Your task to perform on an android device: check the backup settings in the google photos Image 0: 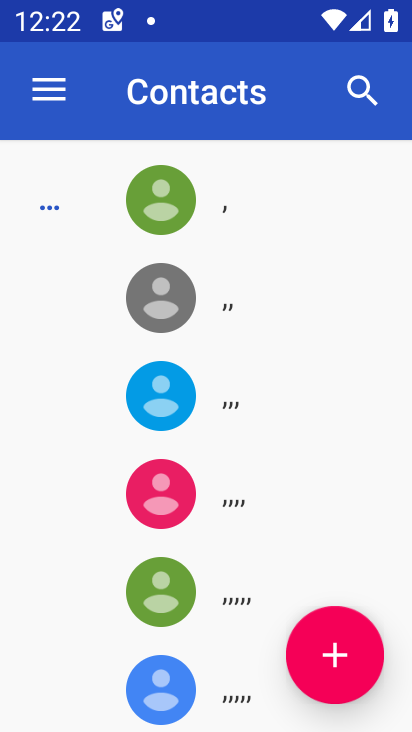
Step 0: press home button
Your task to perform on an android device: check the backup settings in the google photos Image 1: 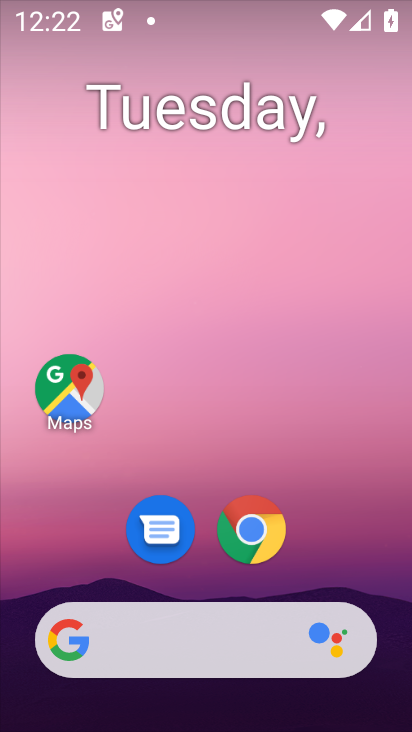
Step 1: drag from (220, 547) to (263, 197)
Your task to perform on an android device: check the backup settings in the google photos Image 2: 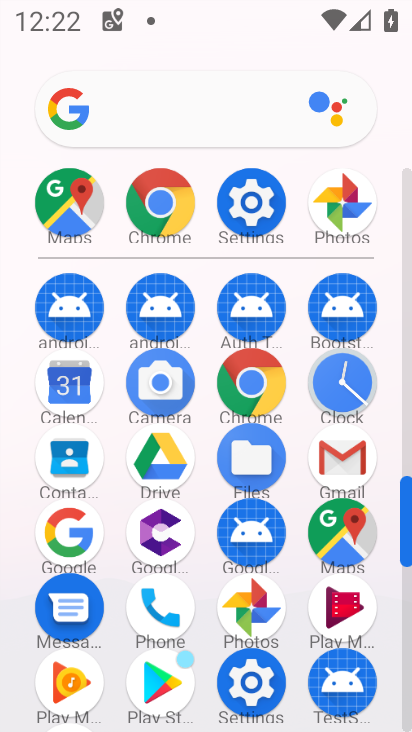
Step 2: click (256, 586)
Your task to perform on an android device: check the backup settings in the google photos Image 3: 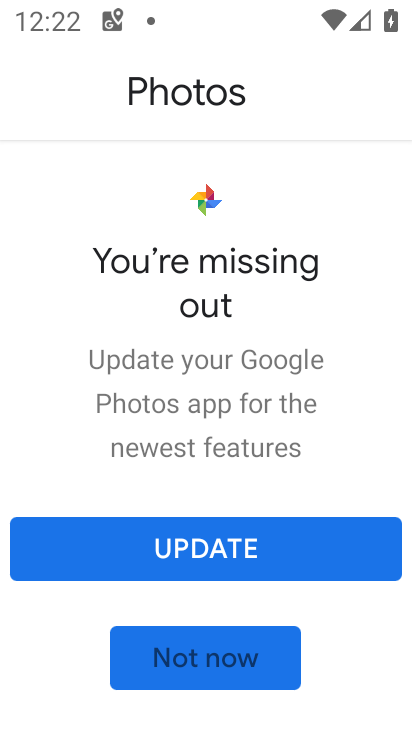
Step 3: click (216, 552)
Your task to perform on an android device: check the backup settings in the google photos Image 4: 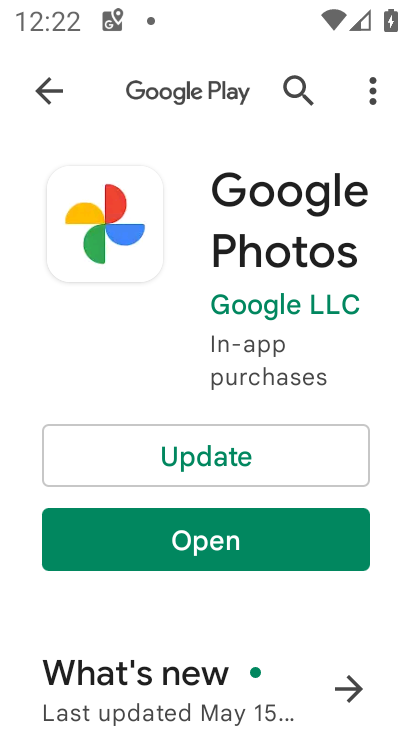
Step 4: click (192, 446)
Your task to perform on an android device: check the backup settings in the google photos Image 5: 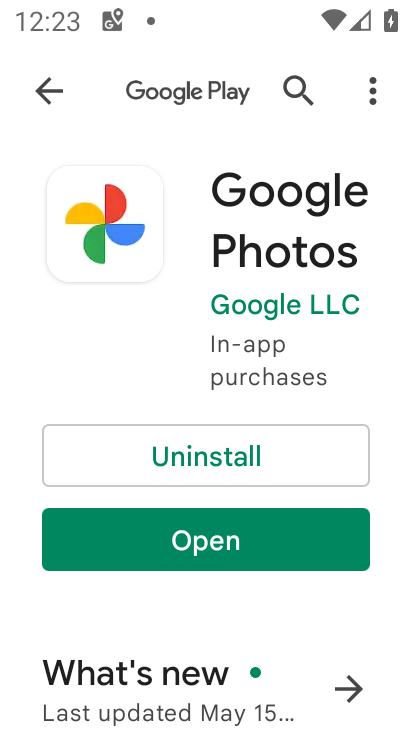
Step 5: click (196, 549)
Your task to perform on an android device: check the backup settings in the google photos Image 6: 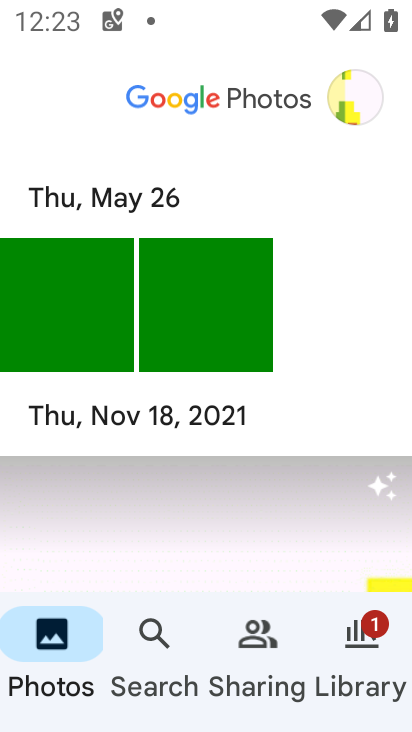
Step 6: click (349, 83)
Your task to perform on an android device: check the backup settings in the google photos Image 7: 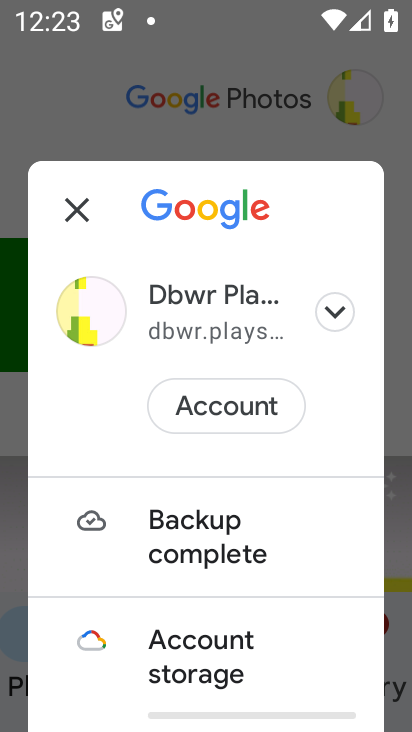
Step 7: drag from (210, 642) to (279, 366)
Your task to perform on an android device: check the backup settings in the google photos Image 8: 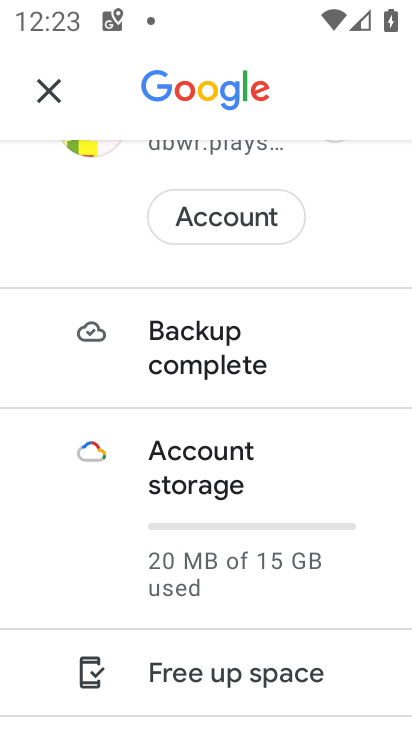
Step 8: drag from (240, 483) to (321, 251)
Your task to perform on an android device: check the backup settings in the google photos Image 9: 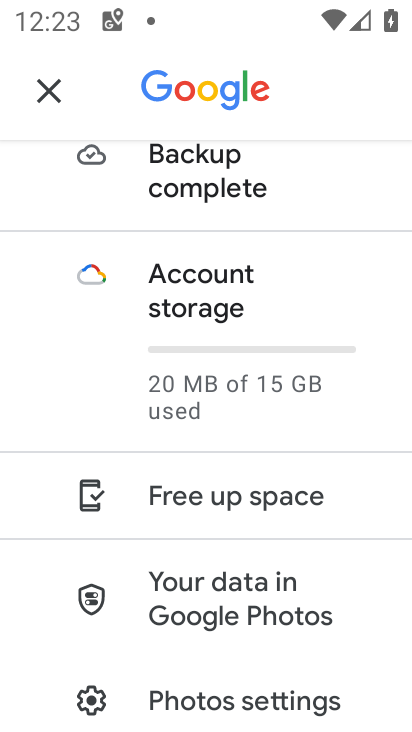
Step 9: click (182, 690)
Your task to perform on an android device: check the backup settings in the google photos Image 10: 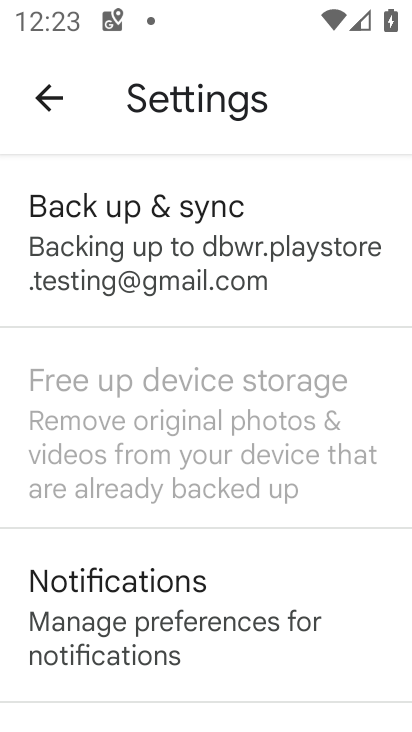
Step 10: click (225, 259)
Your task to perform on an android device: check the backup settings in the google photos Image 11: 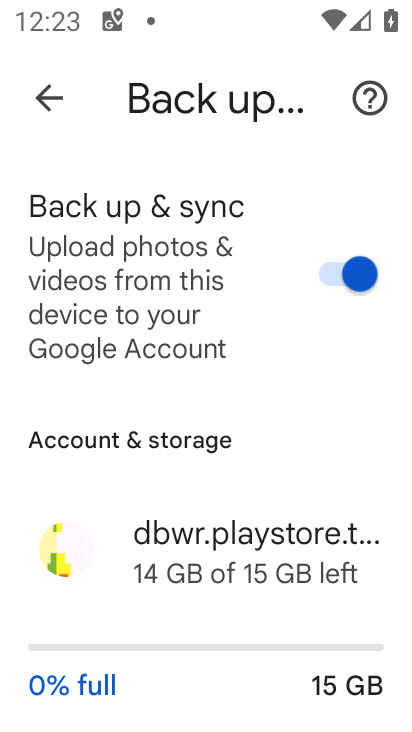
Step 11: task complete